Your task to perform on an android device: Go to wifi settings Image 0: 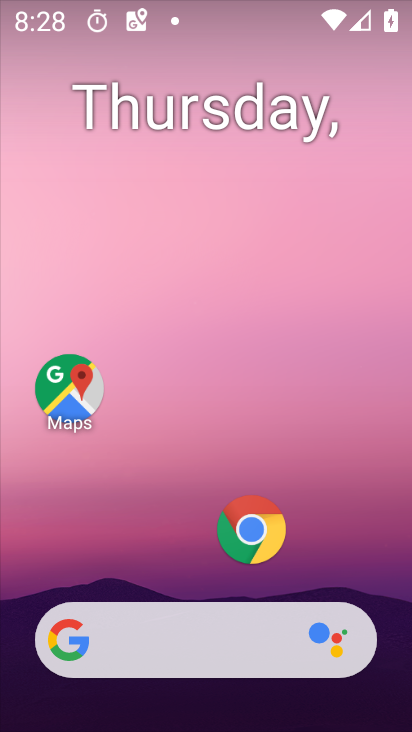
Step 0: drag from (177, 577) to (198, 89)
Your task to perform on an android device: Go to wifi settings Image 1: 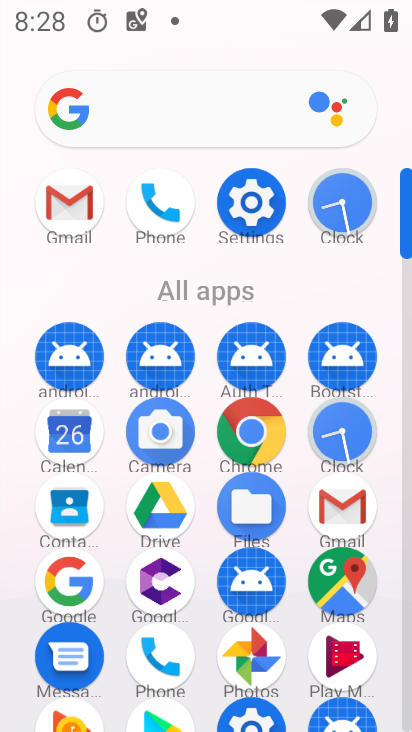
Step 1: click (249, 188)
Your task to perform on an android device: Go to wifi settings Image 2: 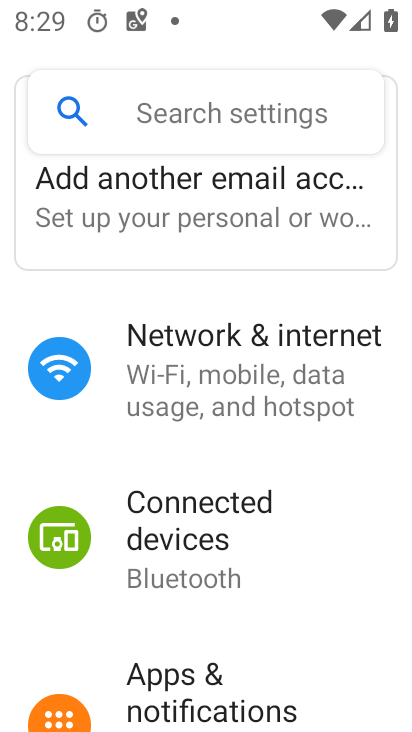
Step 2: click (155, 368)
Your task to perform on an android device: Go to wifi settings Image 3: 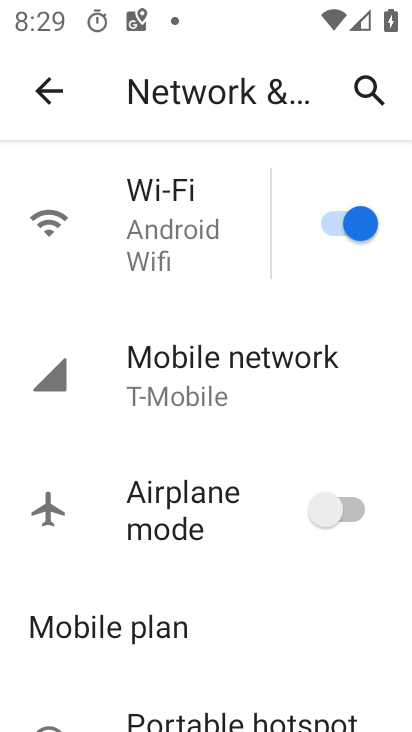
Step 3: click (187, 258)
Your task to perform on an android device: Go to wifi settings Image 4: 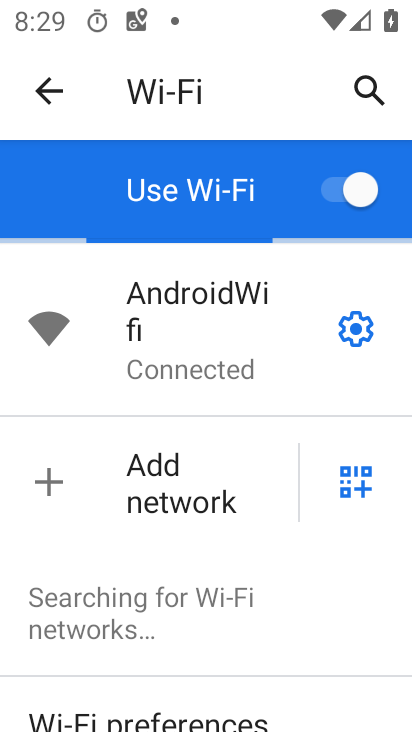
Step 4: task complete